Your task to perform on an android device: Go to privacy settings Image 0: 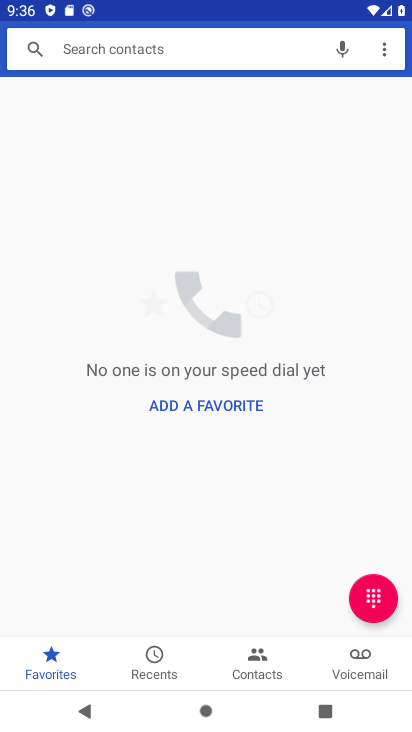
Step 0: press home button
Your task to perform on an android device: Go to privacy settings Image 1: 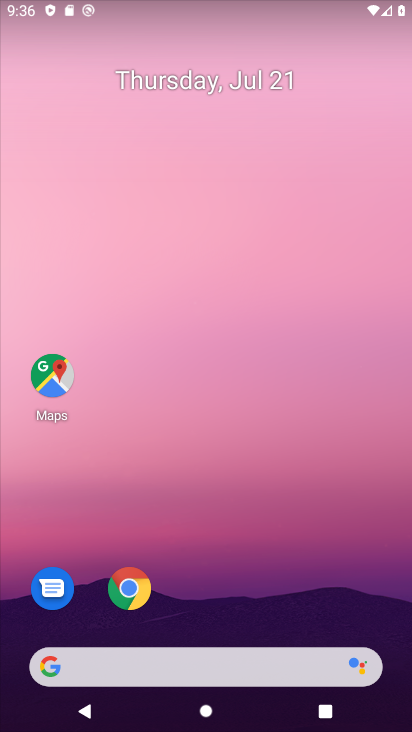
Step 1: drag from (185, 604) to (251, 25)
Your task to perform on an android device: Go to privacy settings Image 2: 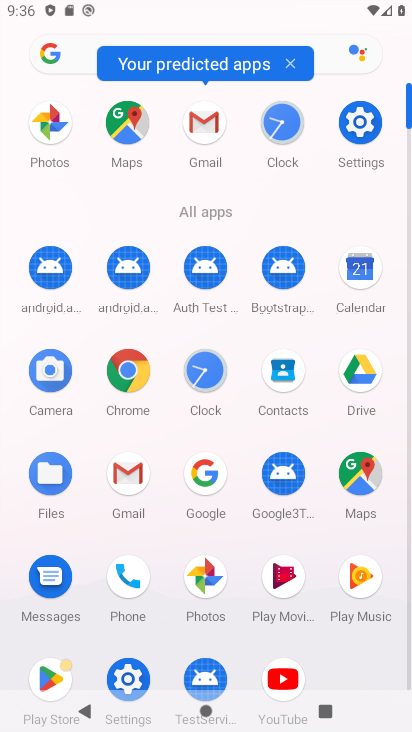
Step 2: click (358, 125)
Your task to perform on an android device: Go to privacy settings Image 3: 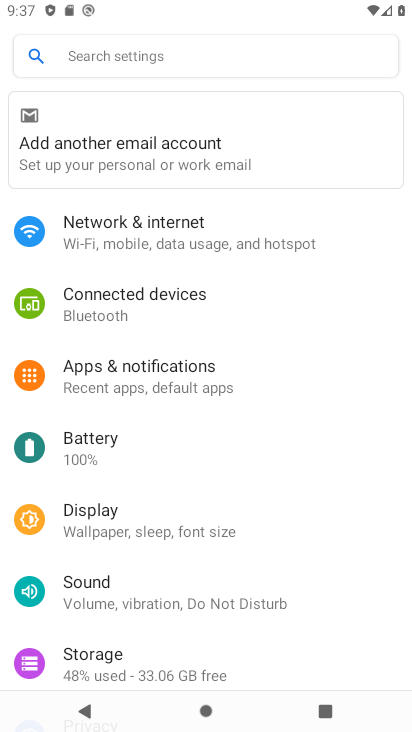
Step 3: drag from (186, 594) to (200, 178)
Your task to perform on an android device: Go to privacy settings Image 4: 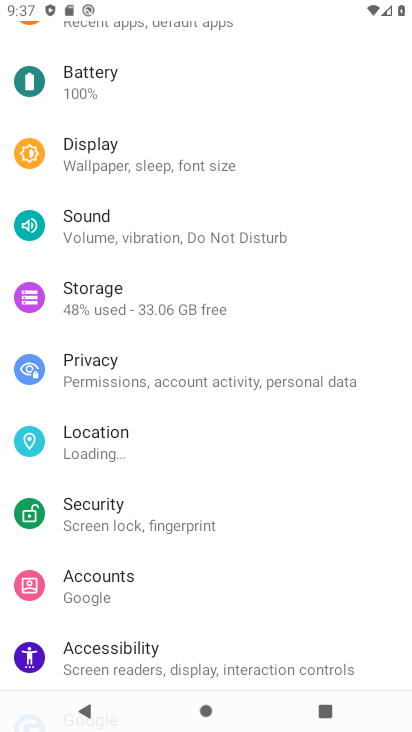
Step 4: click (108, 377)
Your task to perform on an android device: Go to privacy settings Image 5: 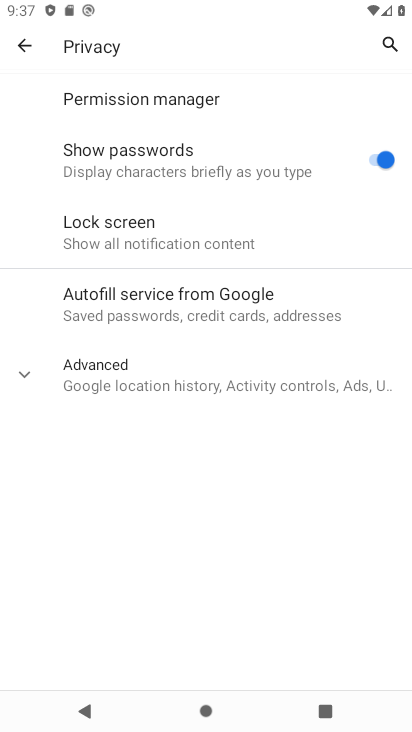
Step 5: task complete